Your task to perform on an android device: set an alarm Image 0: 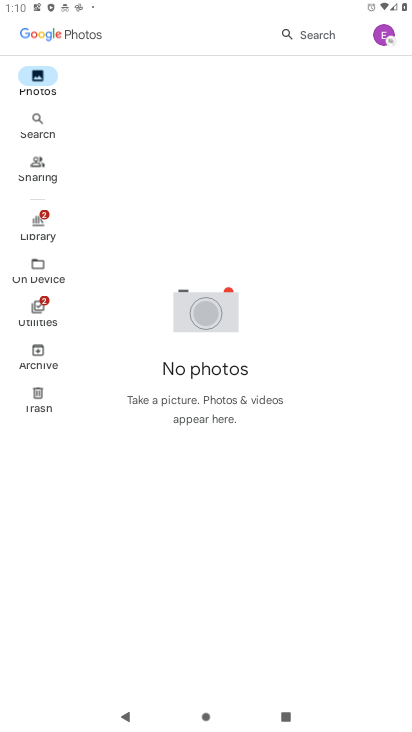
Step 0: press home button
Your task to perform on an android device: set an alarm Image 1: 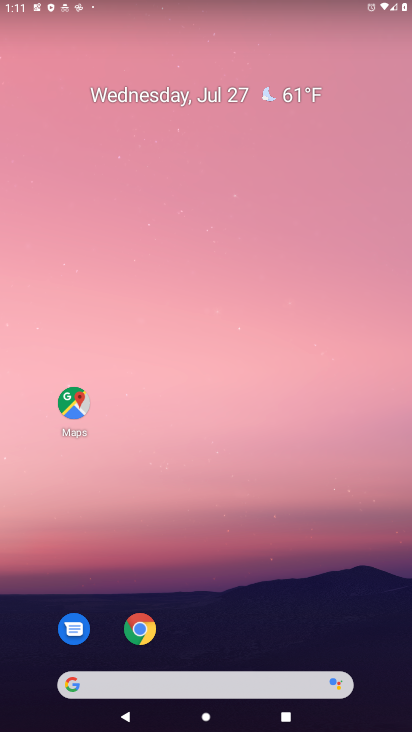
Step 1: drag from (264, 651) to (193, 5)
Your task to perform on an android device: set an alarm Image 2: 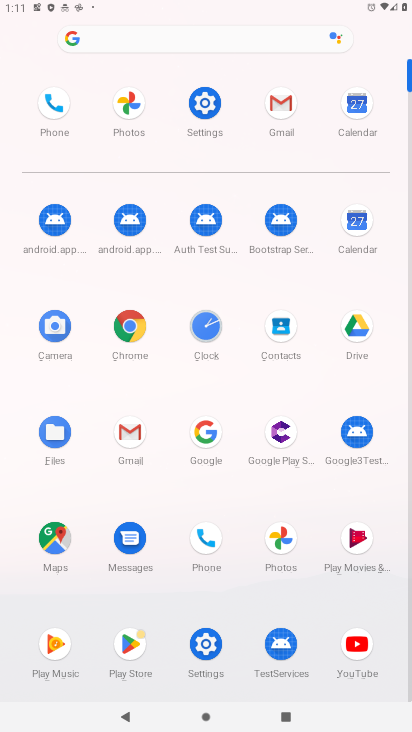
Step 2: click (220, 340)
Your task to perform on an android device: set an alarm Image 3: 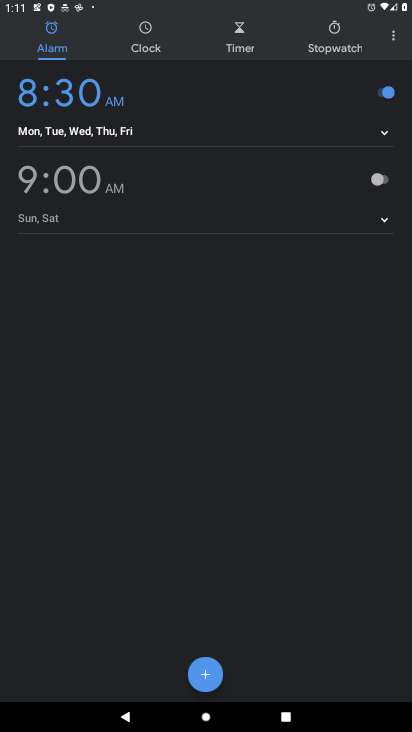
Step 3: task complete